Your task to perform on an android device: turn vacation reply on in the gmail app Image 0: 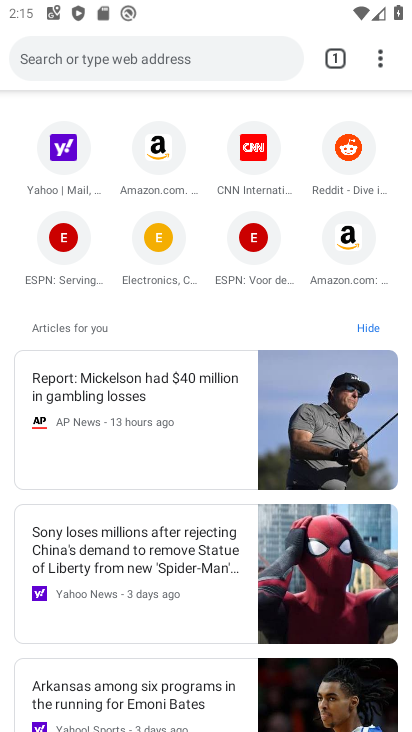
Step 0: press home button
Your task to perform on an android device: turn vacation reply on in the gmail app Image 1: 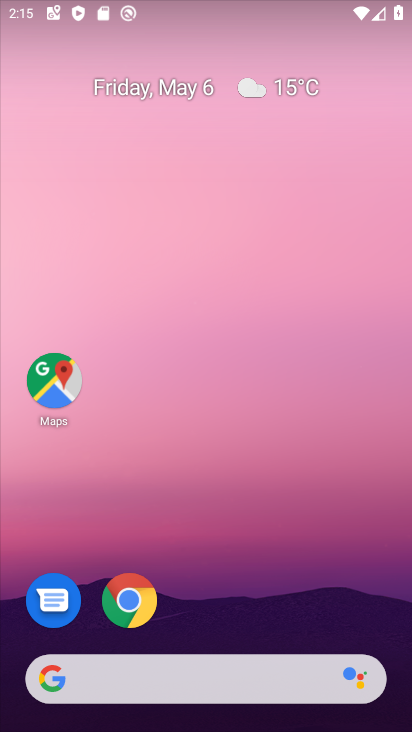
Step 1: drag from (271, 601) to (206, 17)
Your task to perform on an android device: turn vacation reply on in the gmail app Image 2: 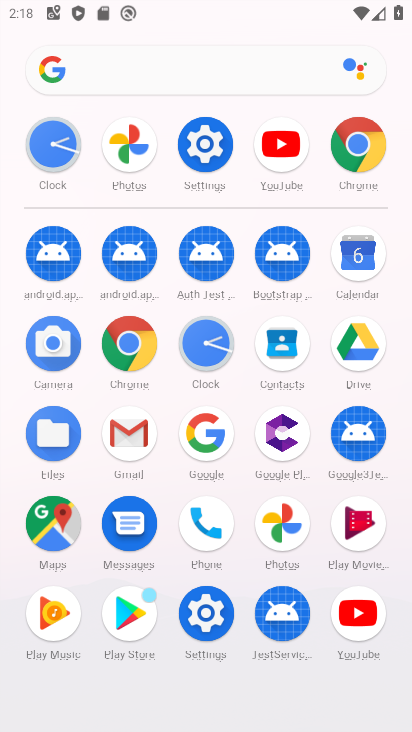
Step 2: click (142, 434)
Your task to perform on an android device: turn vacation reply on in the gmail app Image 3: 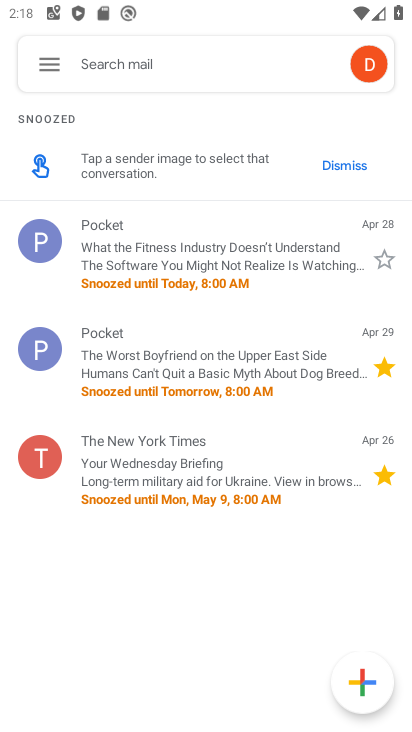
Step 3: click (47, 67)
Your task to perform on an android device: turn vacation reply on in the gmail app Image 4: 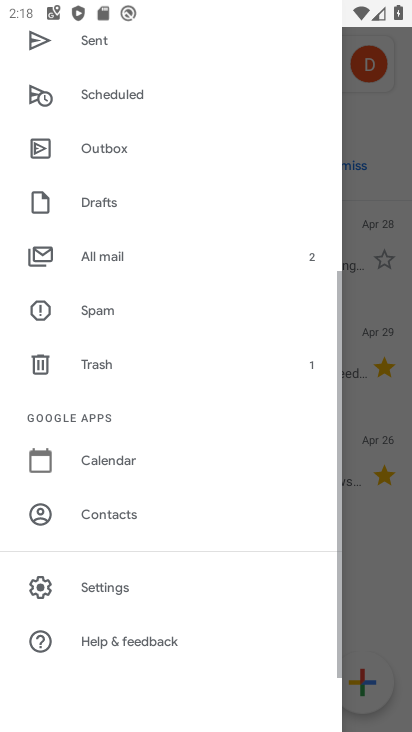
Step 4: click (95, 578)
Your task to perform on an android device: turn vacation reply on in the gmail app Image 5: 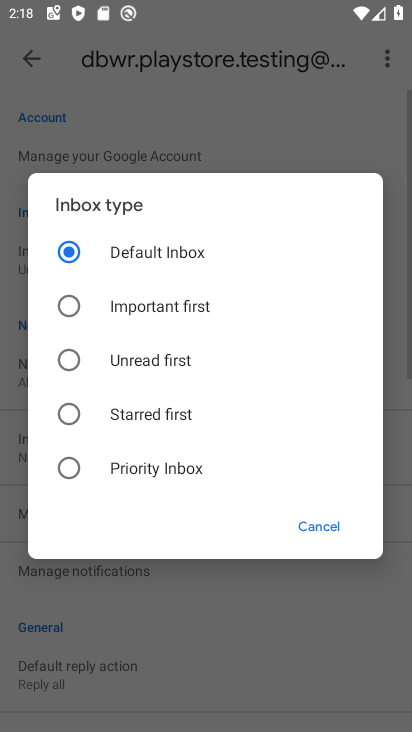
Step 5: click (305, 516)
Your task to perform on an android device: turn vacation reply on in the gmail app Image 6: 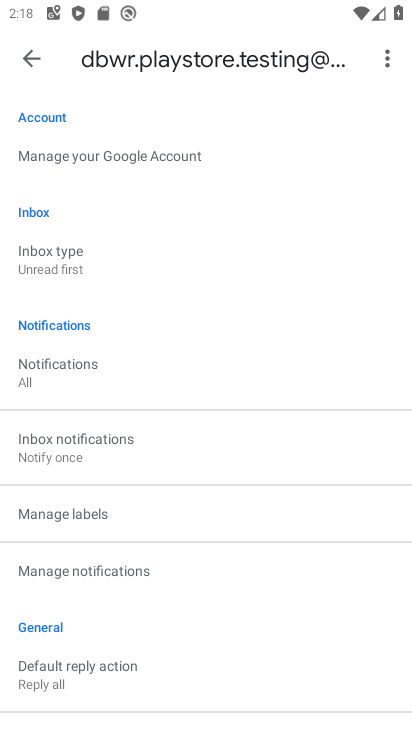
Step 6: drag from (209, 669) to (274, 204)
Your task to perform on an android device: turn vacation reply on in the gmail app Image 7: 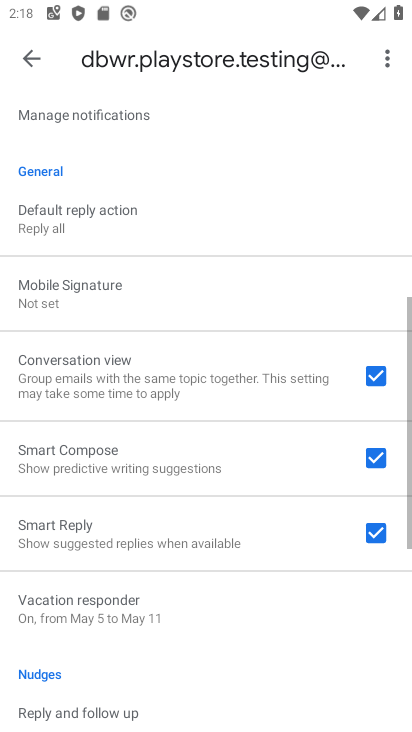
Step 7: click (122, 611)
Your task to perform on an android device: turn vacation reply on in the gmail app Image 8: 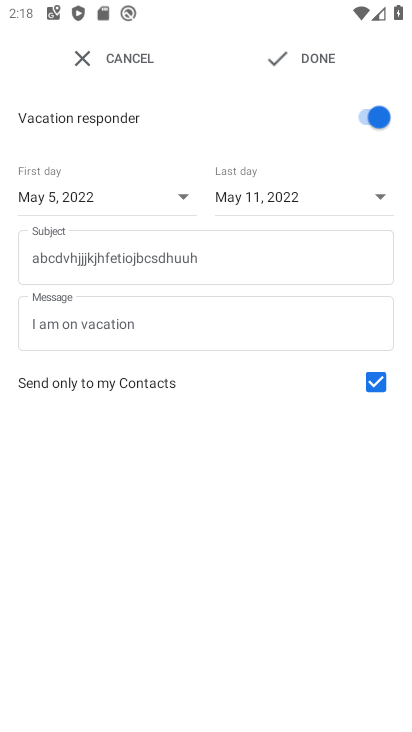
Step 8: task complete